Your task to perform on an android device: Add "razer nari" to the cart on target, then select checkout. Image 0: 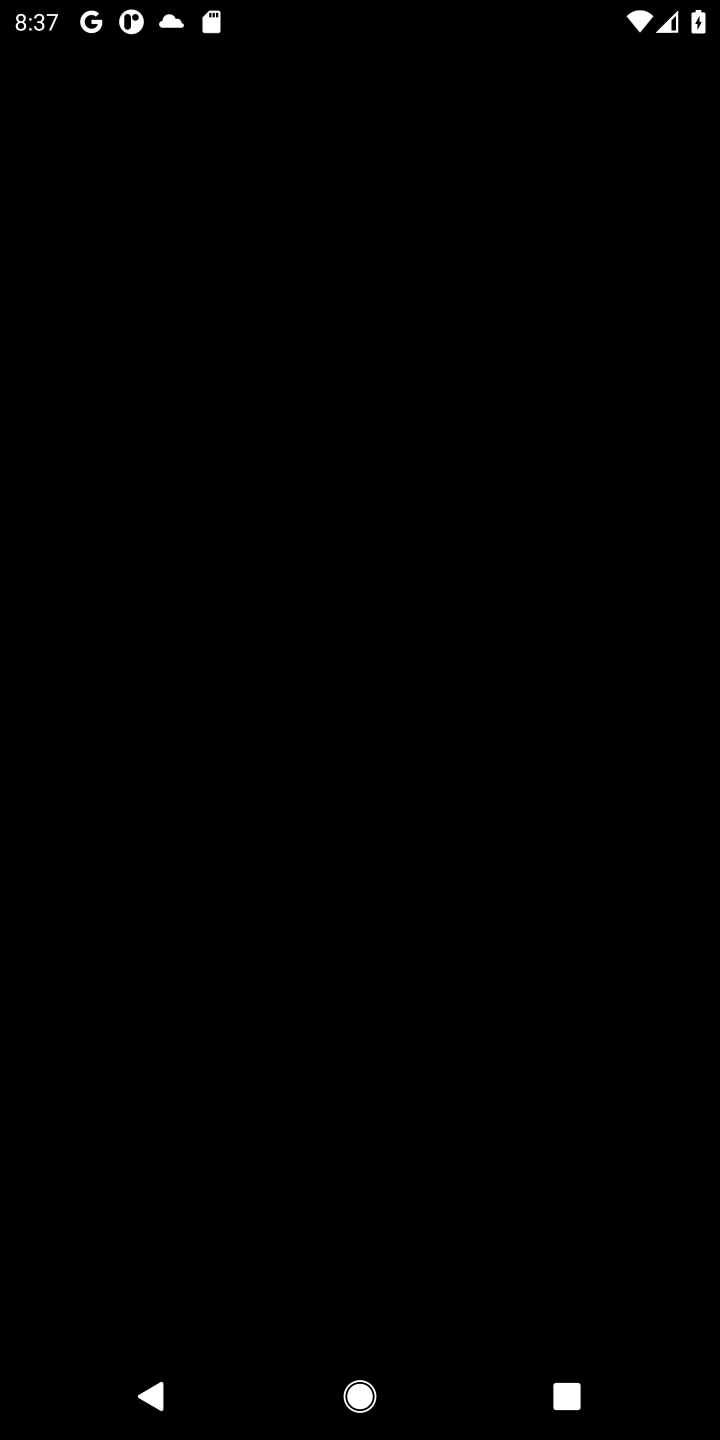
Step 0: press home button
Your task to perform on an android device: Add "razer nari" to the cart on target, then select checkout. Image 1: 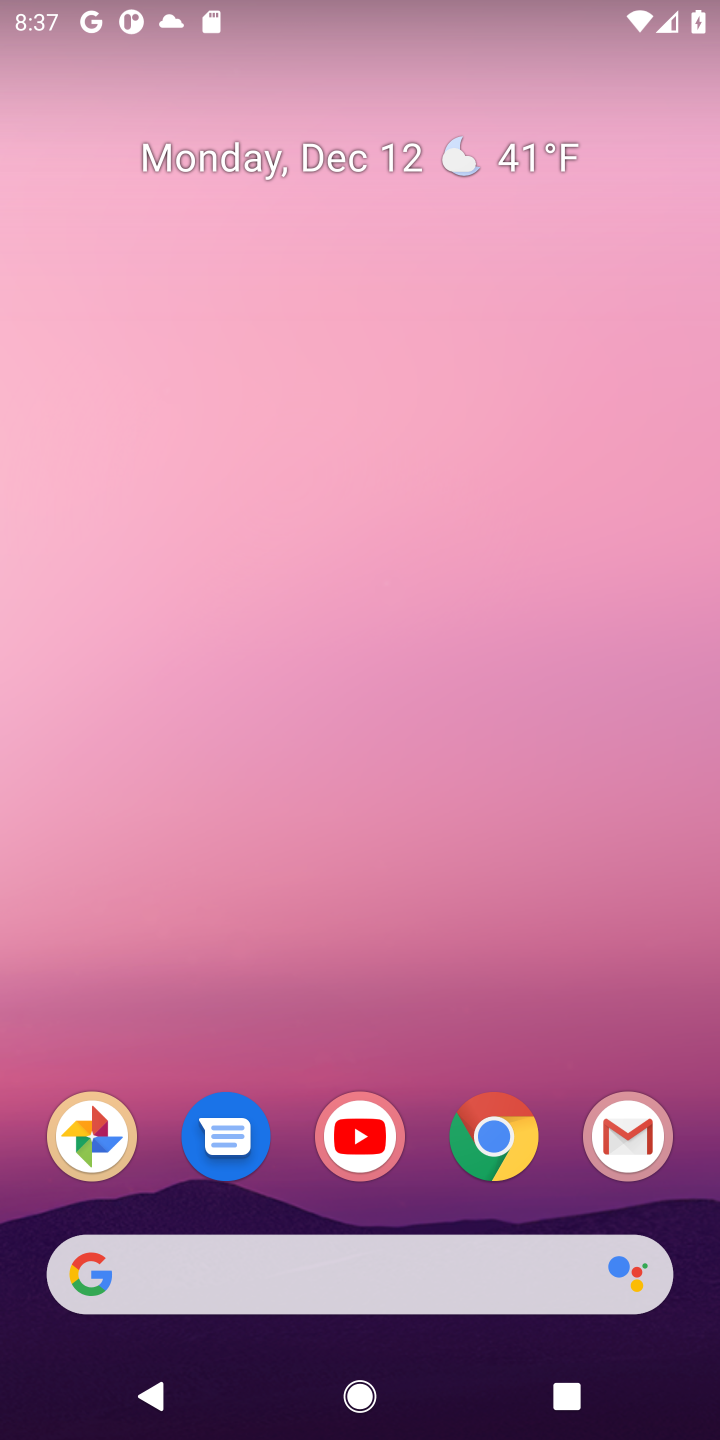
Step 1: click (493, 1141)
Your task to perform on an android device: Add "razer nari" to the cart on target, then select checkout. Image 2: 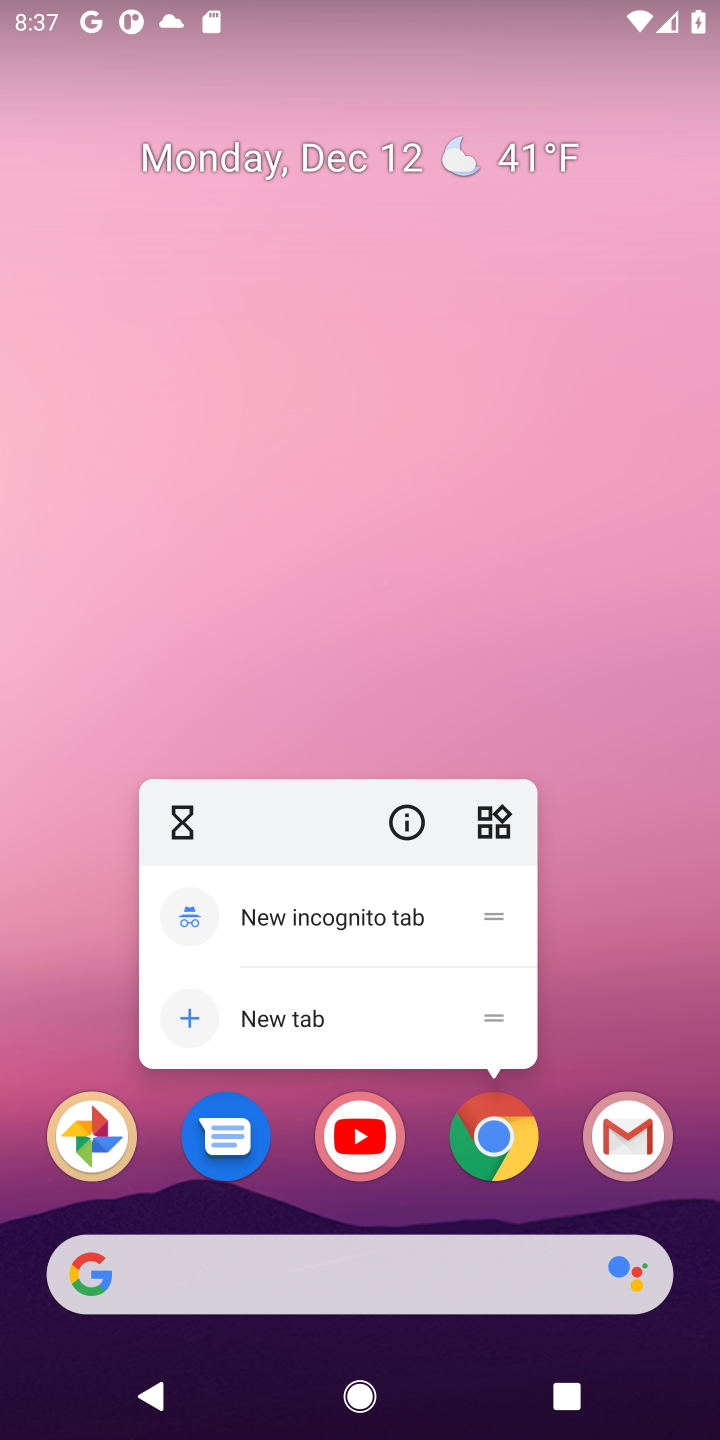
Step 2: click (493, 1141)
Your task to perform on an android device: Add "razer nari" to the cart on target, then select checkout. Image 3: 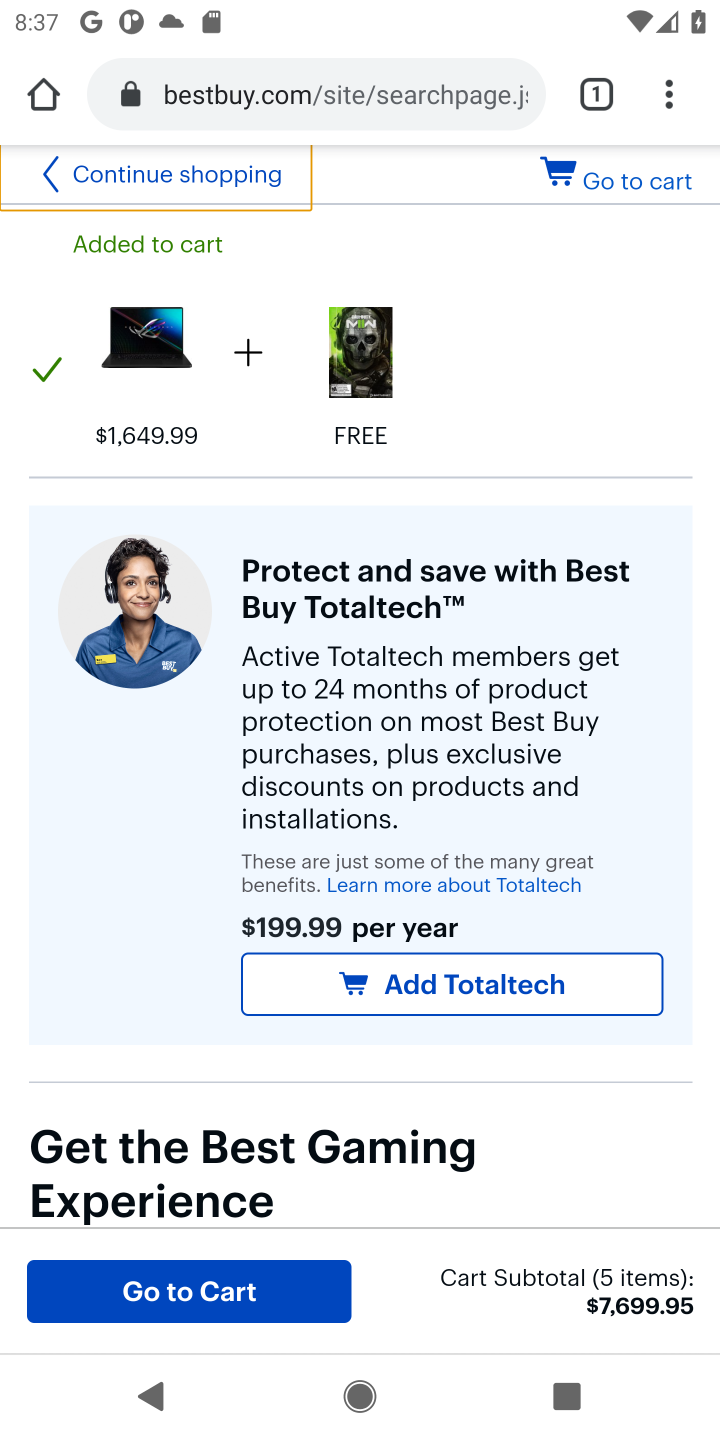
Step 3: click (301, 90)
Your task to perform on an android device: Add "razer nari" to the cart on target, then select checkout. Image 4: 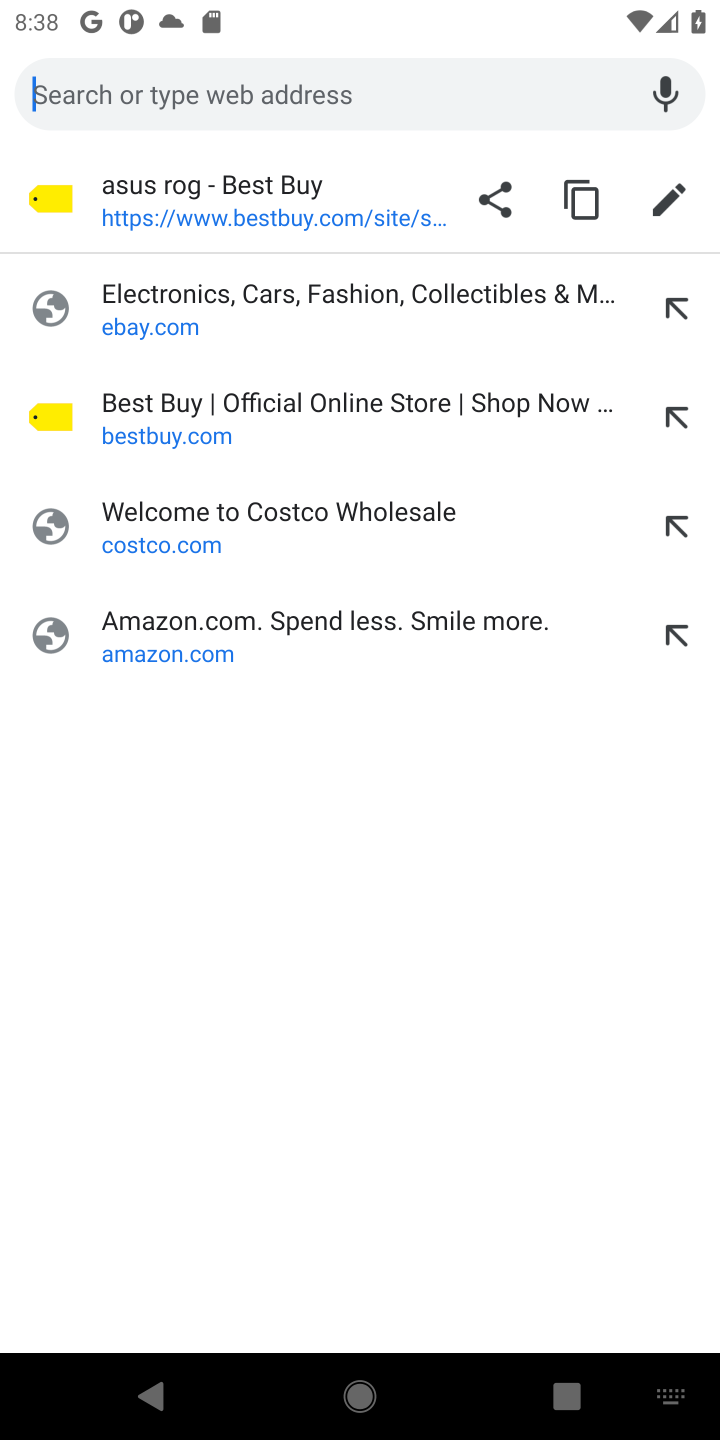
Step 4: type "target.com"
Your task to perform on an android device: Add "razer nari" to the cart on target, then select checkout. Image 5: 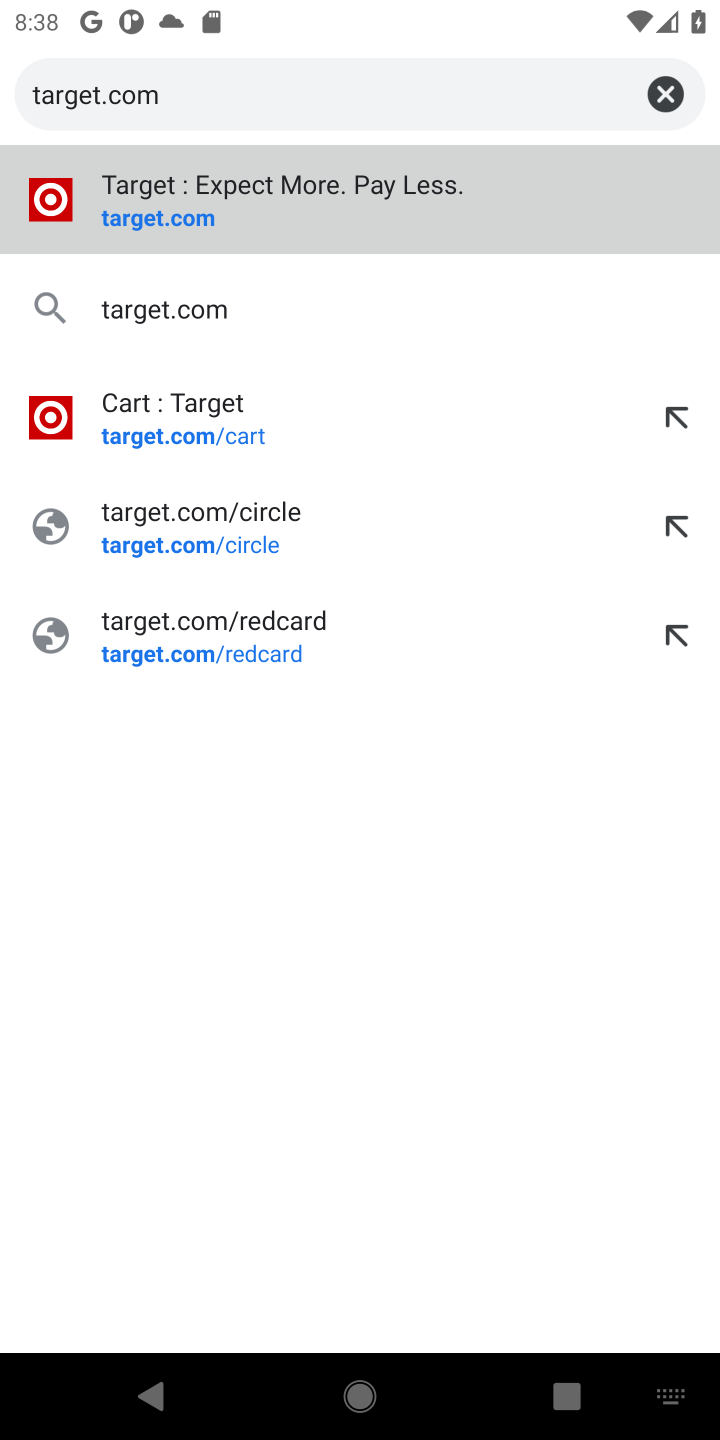
Step 5: click (116, 230)
Your task to perform on an android device: Add "razer nari" to the cart on target, then select checkout. Image 6: 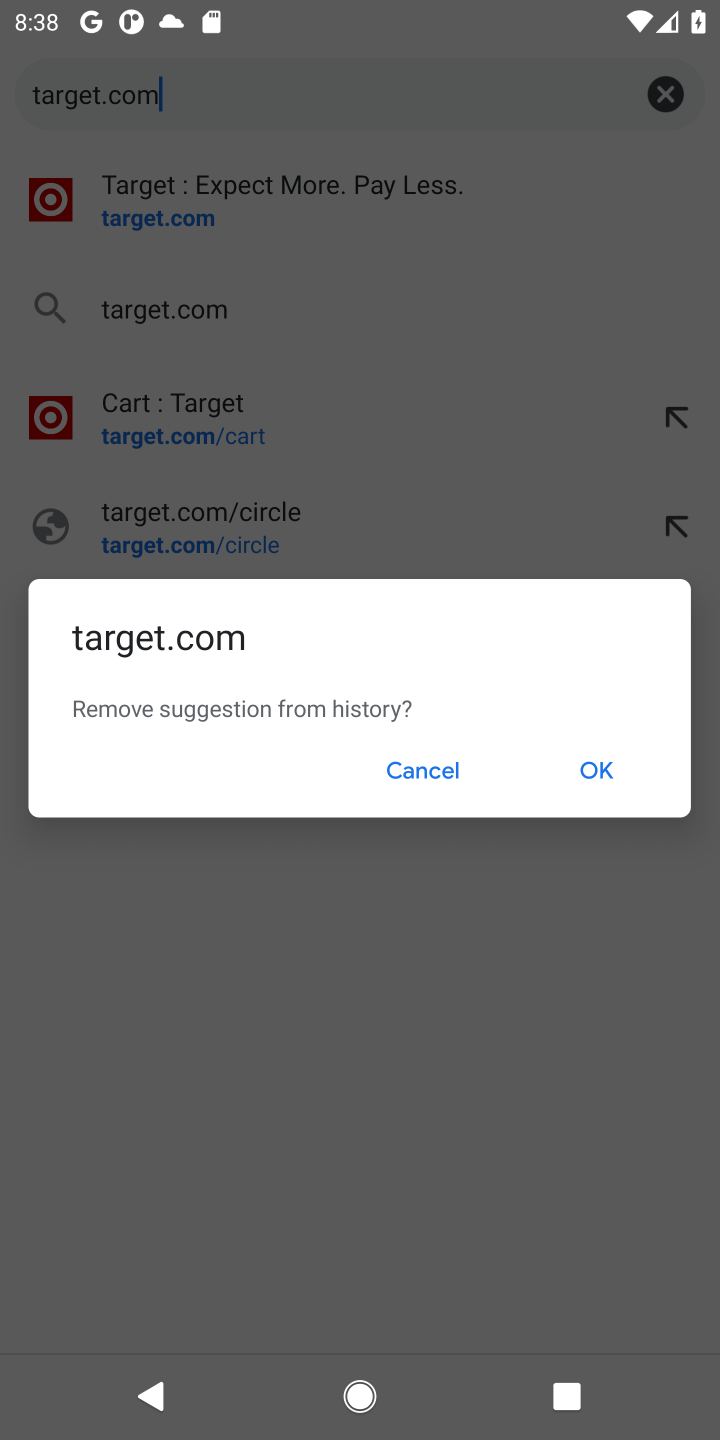
Step 6: click (412, 776)
Your task to perform on an android device: Add "razer nari" to the cart on target, then select checkout. Image 7: 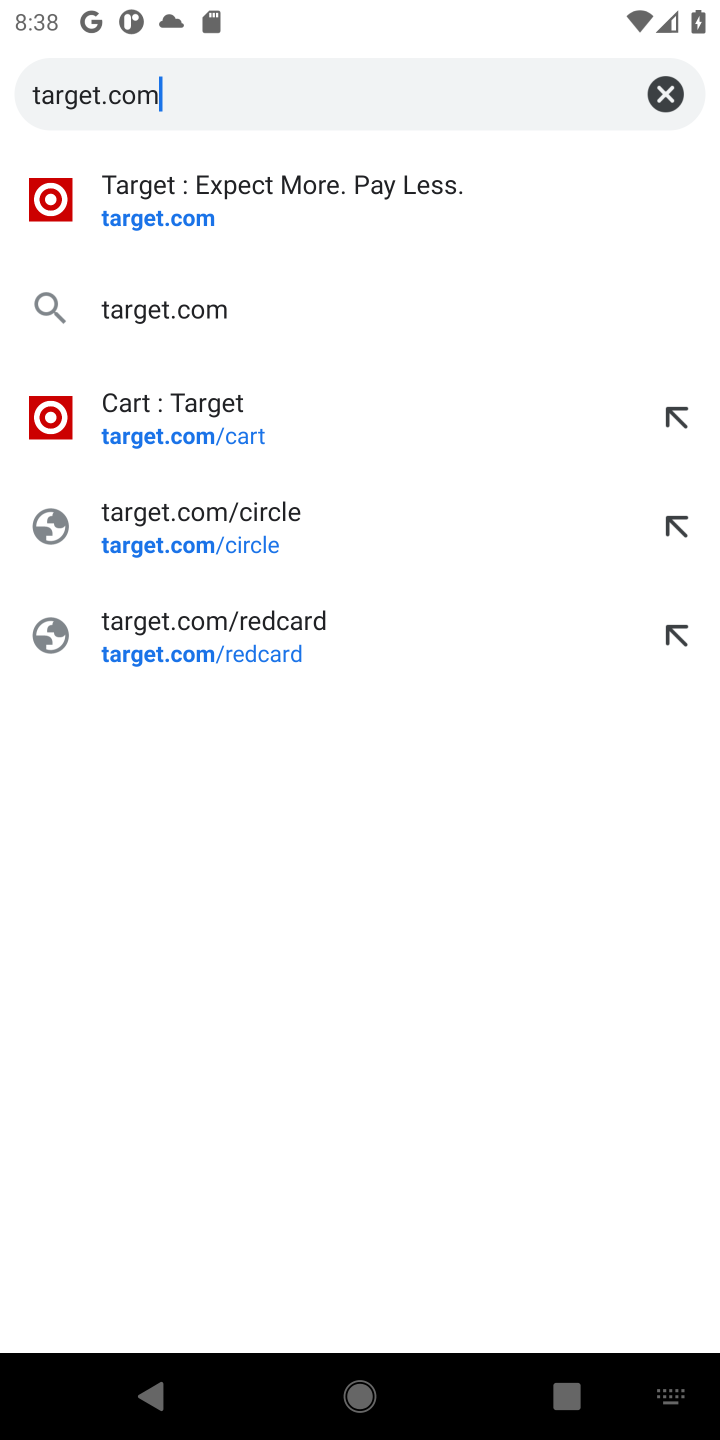
Step 7: click (155, 215)
Your task to perform on an android device: Add "razer nari" to the cart on target, then select checkout. Image 8: 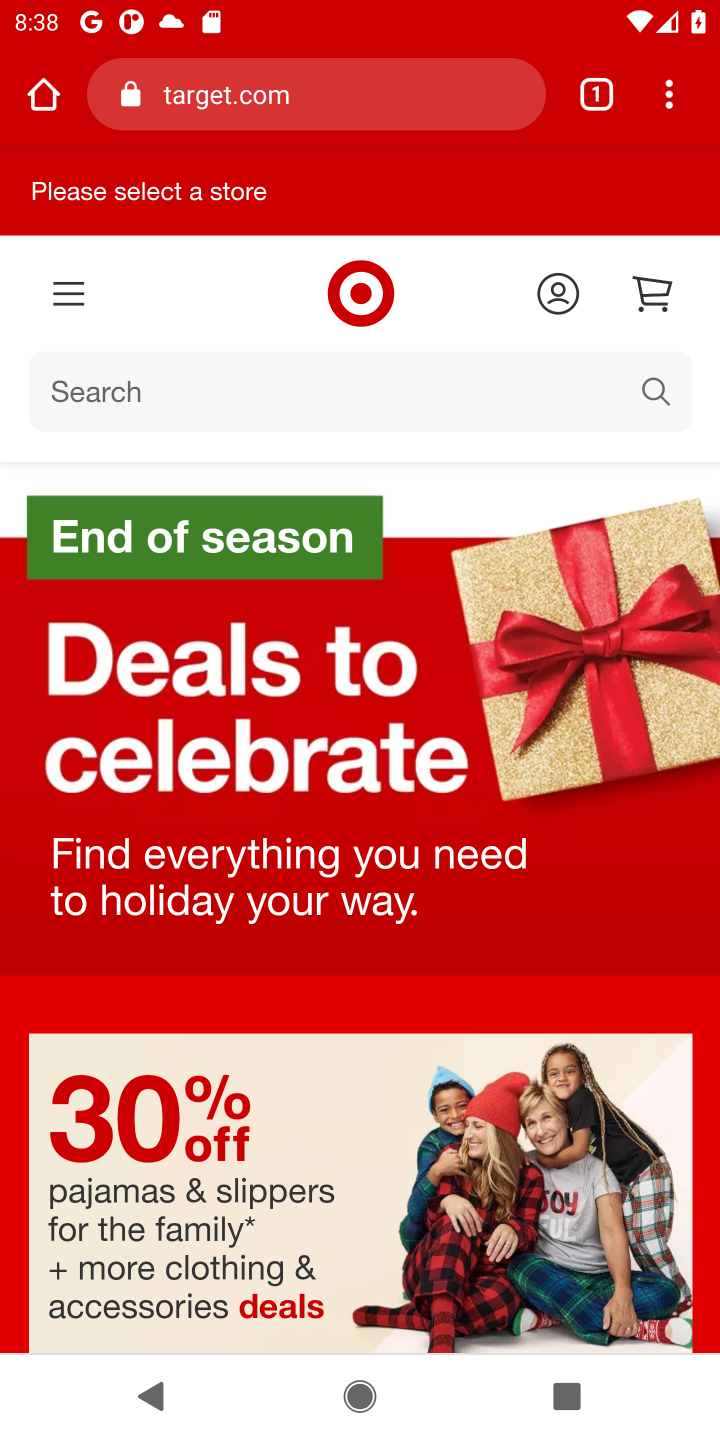
Step 8: click (49, 389)
Your task to perform on an android device: Add "razer nari" to the cart on target, then select checkout. Image 9: 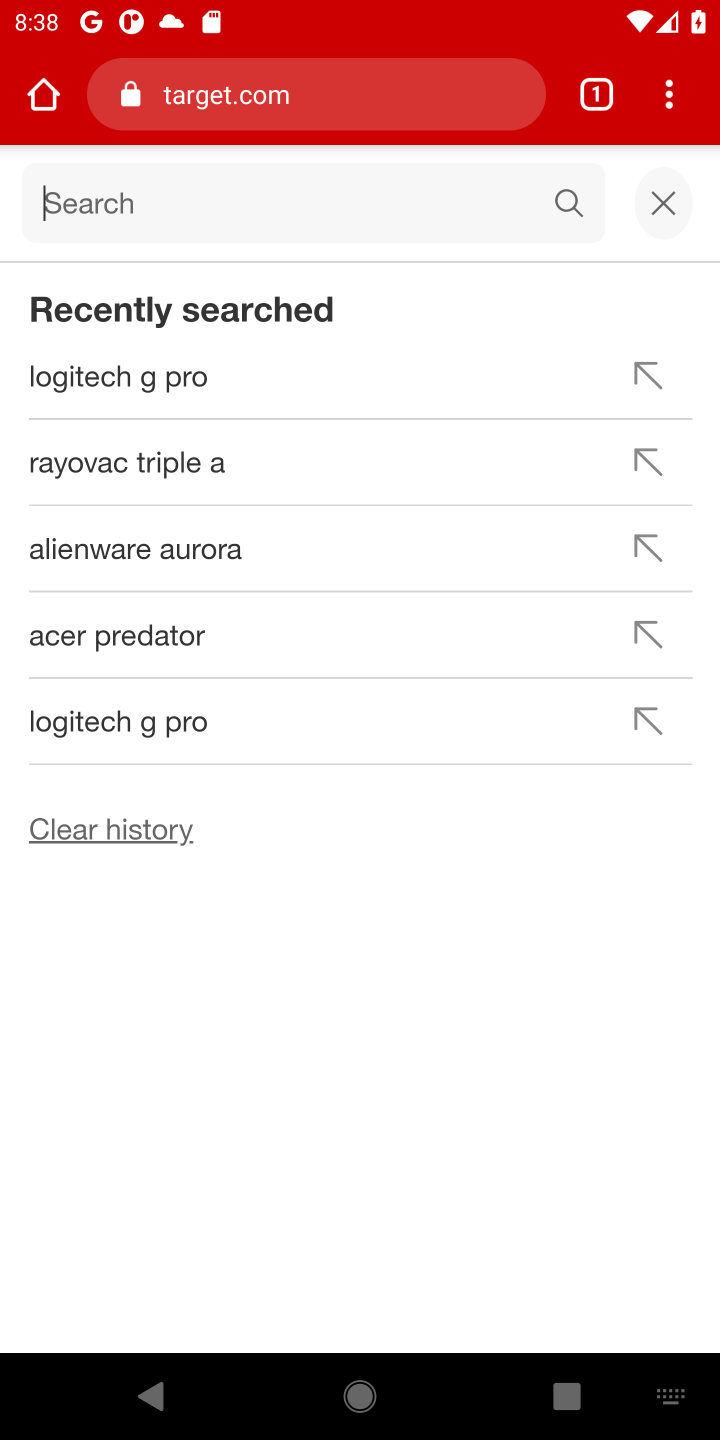
Step 9: type "razer nari"
Your task to perform on an android device: Add "razer nari" to the cart on target, then select checkout. Image 10: 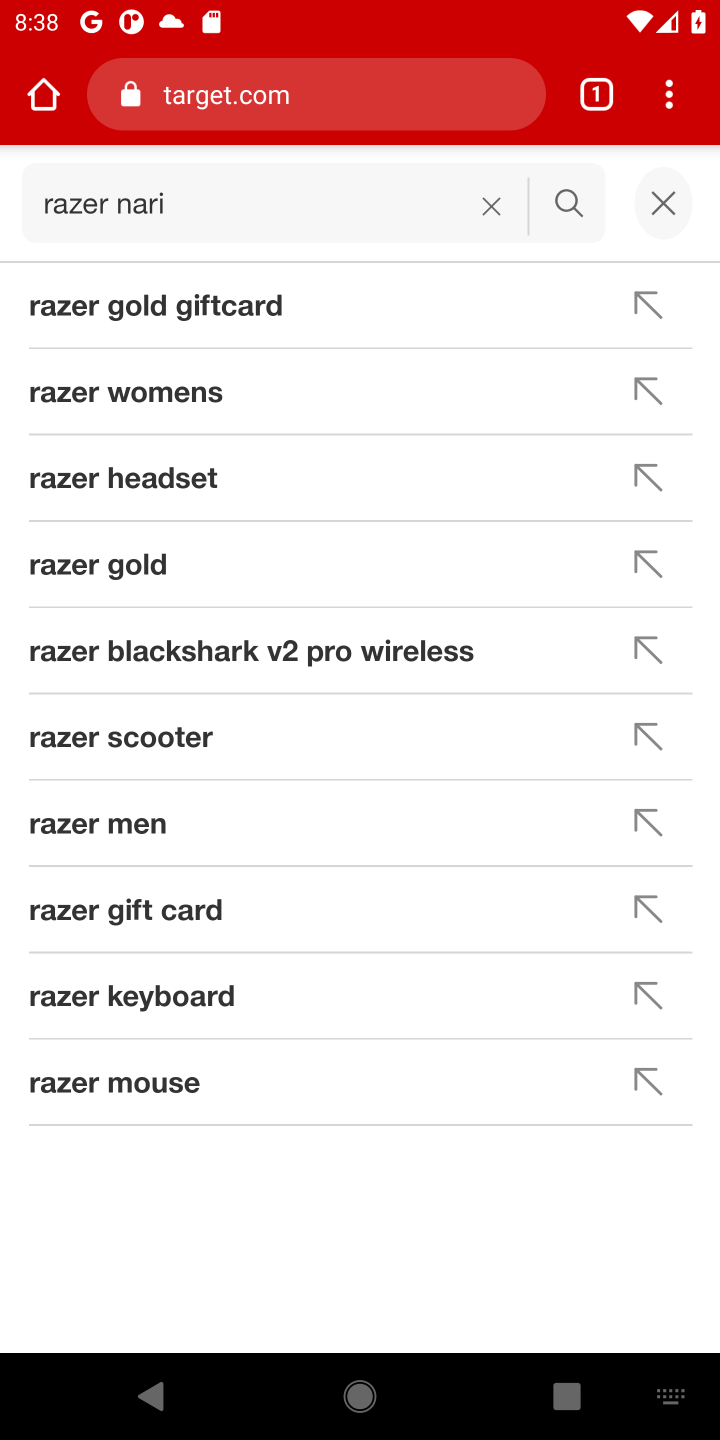
Step 10: click (563, 200)
Your task to perform on an android device: Add "razer nari" to the cart on target, then select checkout. Image 11: 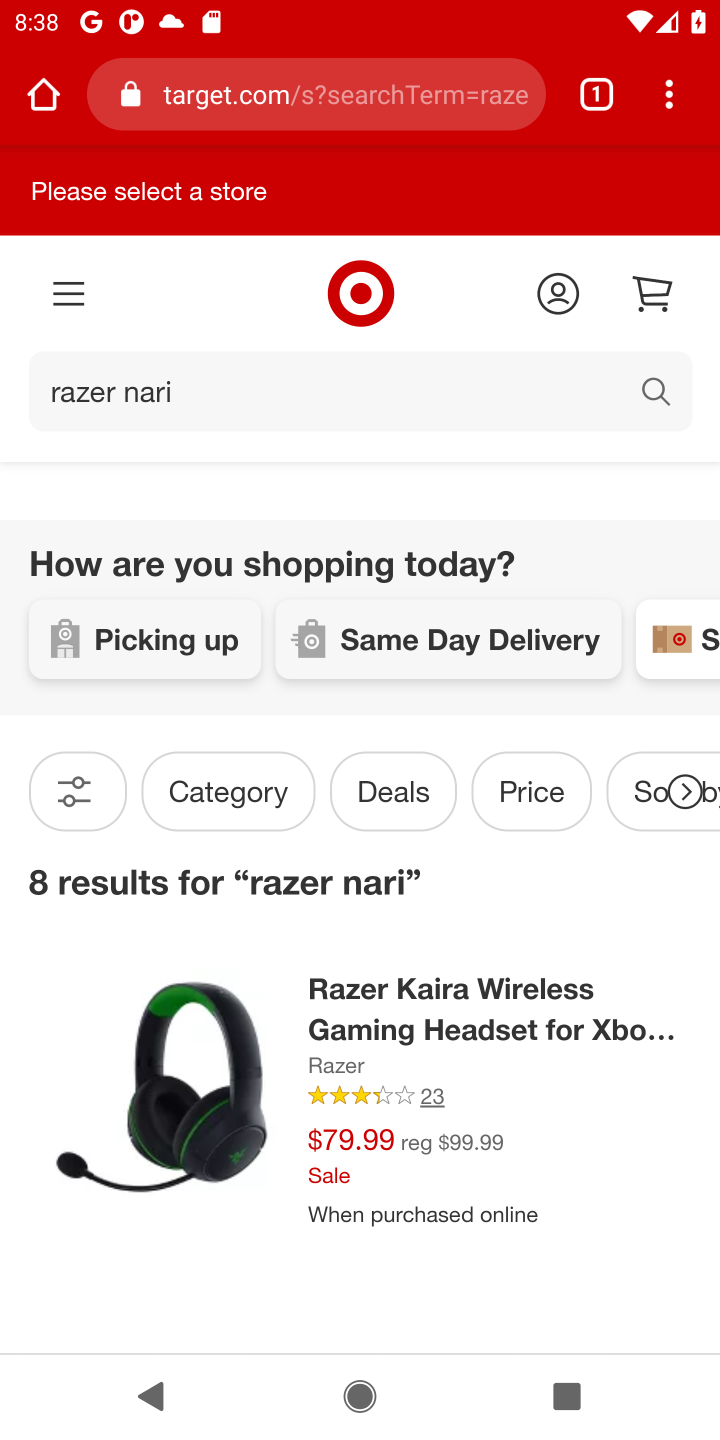
Step 11: task complete